Your task to perform on an android device: toggle priority inbox in the gmail app Image 0: 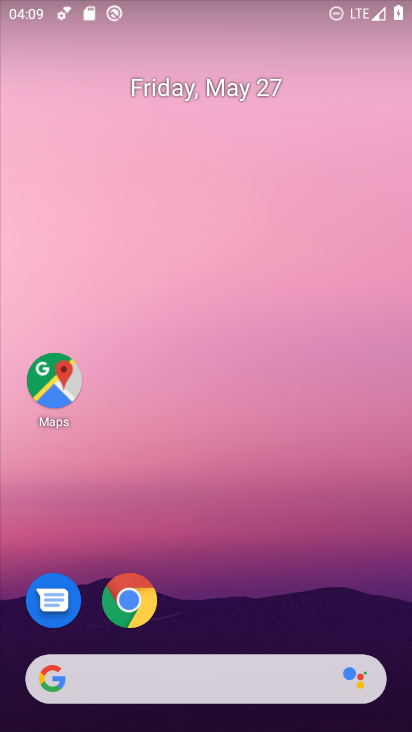
Step 0: drag from (233, 722) to (245, 89)
Your task to perform on an android device: toggle priority inbox in the gmail app Image 1: 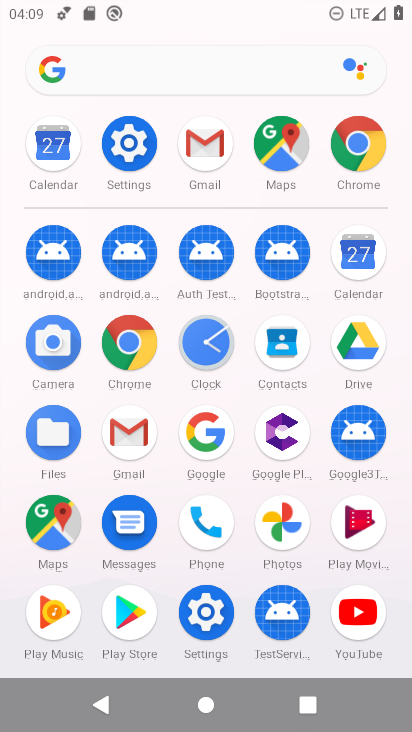
Step 1: click (198, 149)
Your task to perform on an android device: toggle priority inbox in the gmail app Image 2: 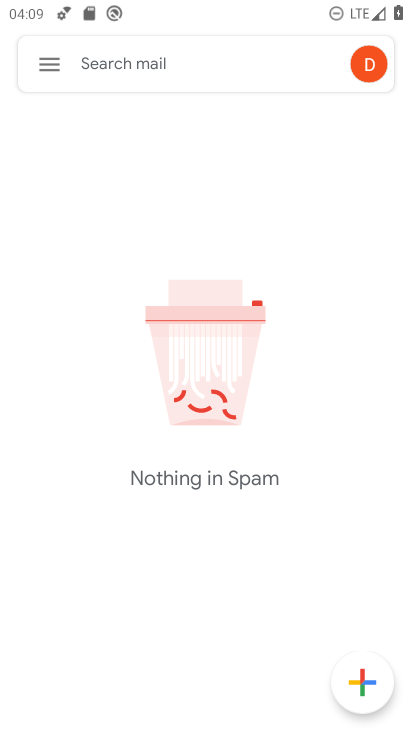
Step 2: click (47, 68)
Your task to perform on an android device: toggle priority inbox in the gmail app Image 3: 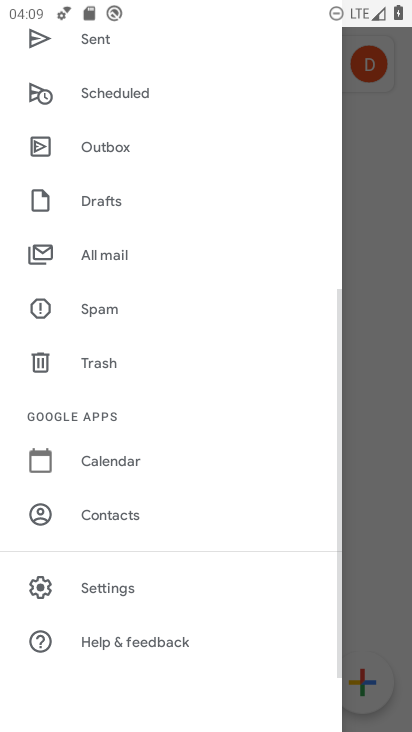
Step 3: click (101, 586)
Your task to perform on an android device: toggle priority inbox in the gmail app Image 4: 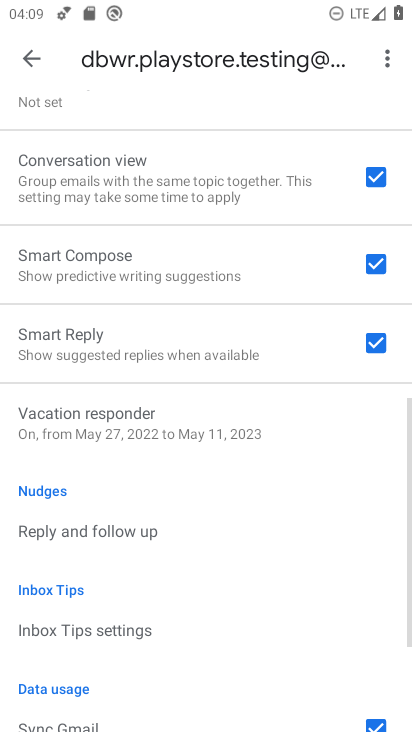
Step 4: drag from (130, 624) to (141, 271)
Your task to perform on an android device: toggle priority inbox in the gmail app Image 5: 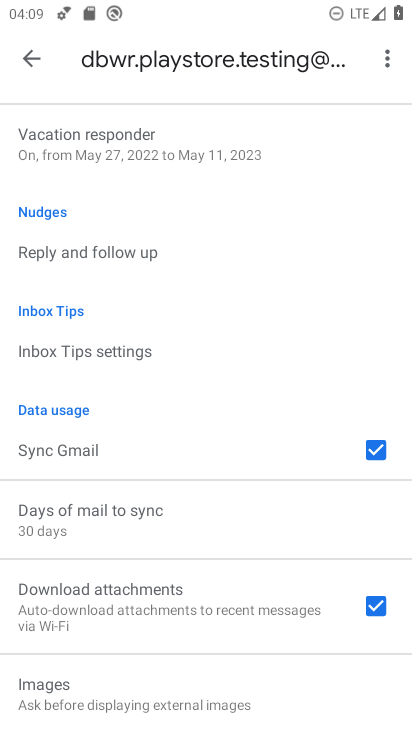
Step 5: drag from (212, 124) to (228, 667)
Your task to perform on an android device: toggle priority inbox in the gmail app Image 6: 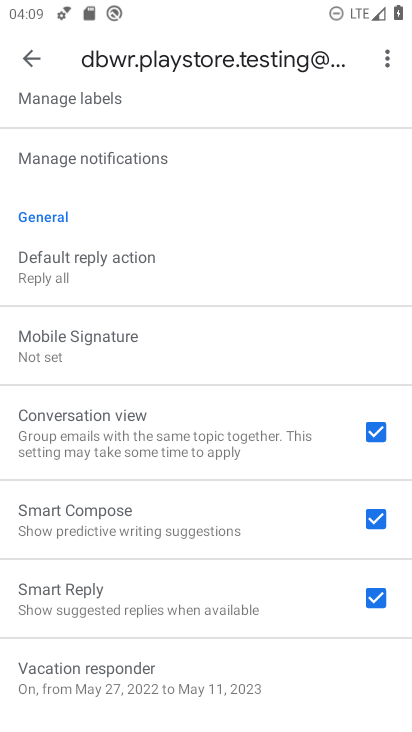
Step 6: drag from (192, 146) to (210, 529)
Your task to perform on an android device: toggle priority inbox in the gmail app Image 7: 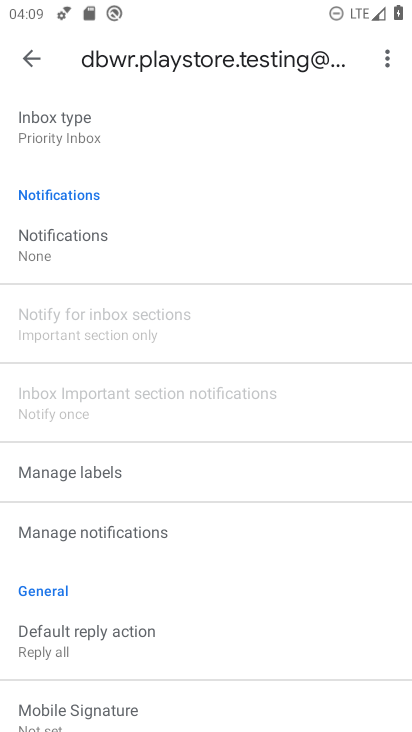
Step 7: click (78, 120)
Your task to perform on an android device: toggle priority inbox in the gmail app Image 8: 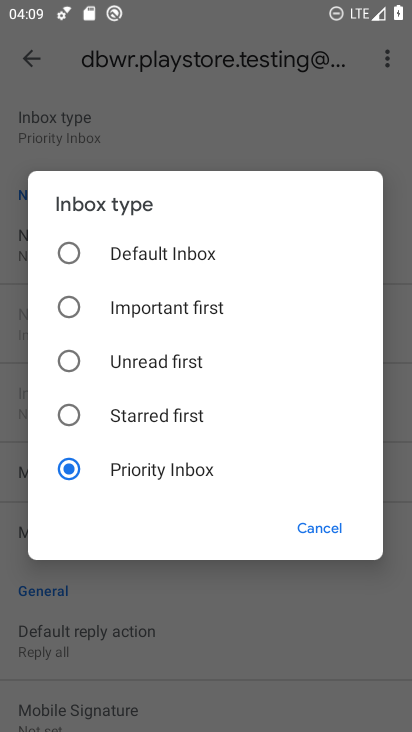
Step 8: click (69, 240)
Your task to perform on an android device: toggle priority inbox in the gmail app Image 9: 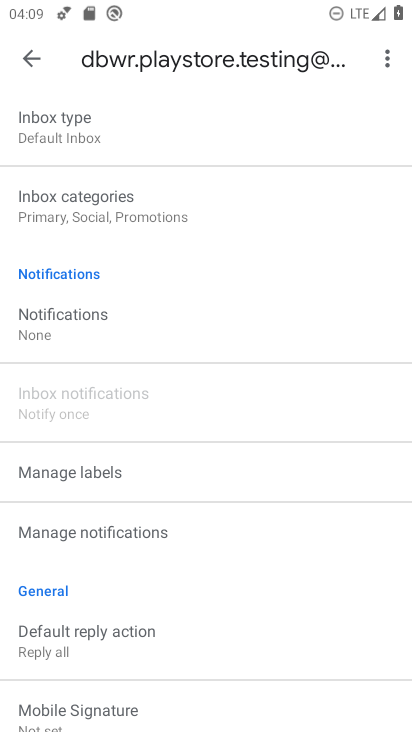
Step 9: task complete